Your task to perform on an android device: Go to display settings Image 0: 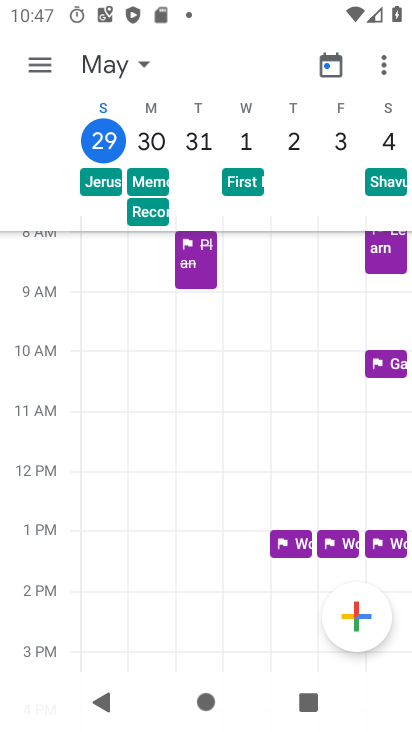
Step 0: press home button
Your task to perform on an android device: Go to display settings Image 1: 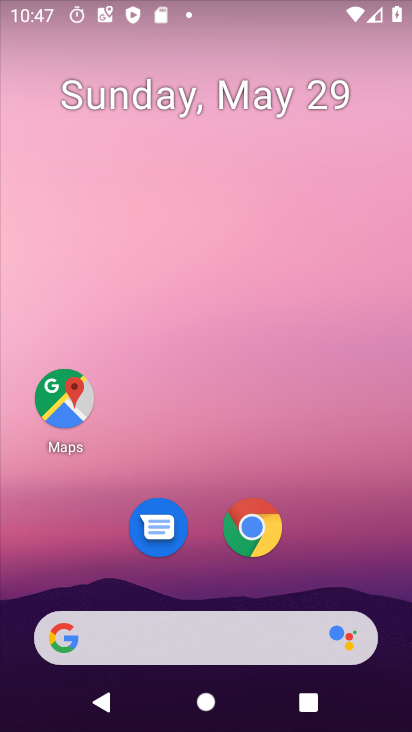
Step 1: drag from (296, 392) to (313, 6)
Your task to perform on an android device: Go to display settings Image 2: 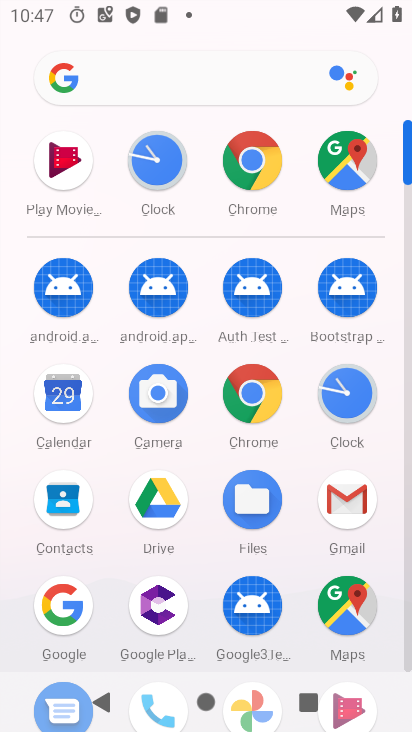
Step 2: drag from (300, 553) to (320, 166)
Your task to perform on an android device: Go to display settings Image 3: 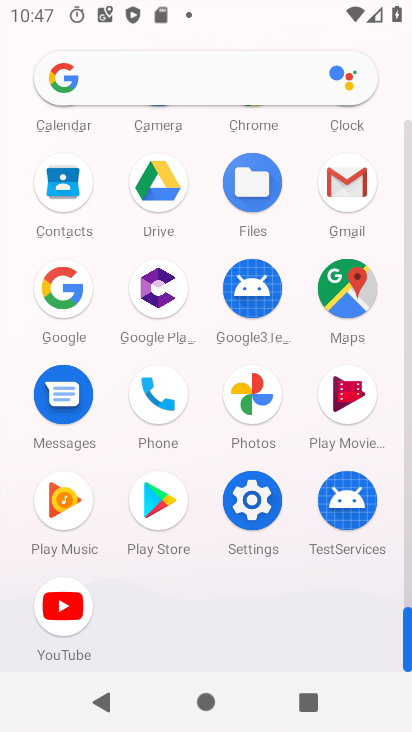
Step 3: click (253, 527)
Your task to perform on an android device: Go to display settings Image 4: 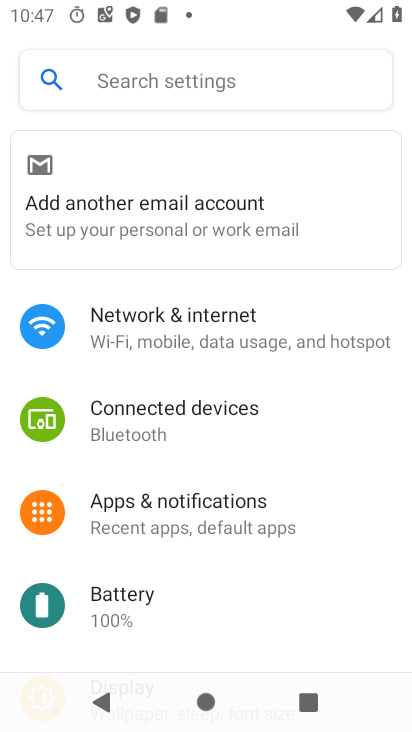
Step 4: drag from (234, 568) to (274, 161)
Your task to perform on an android device: Go to display settings Image 5: 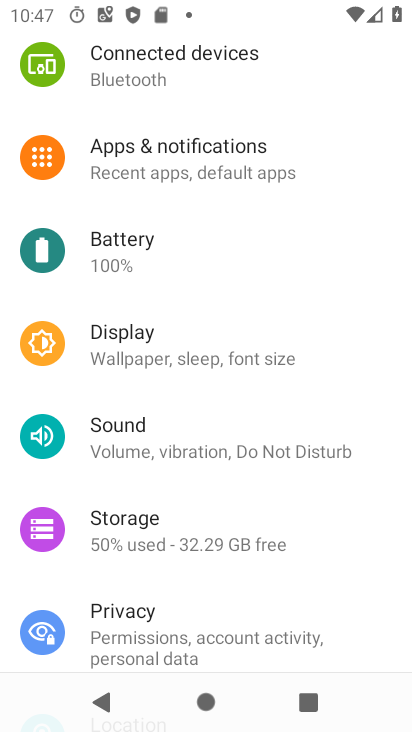
Step 5: click (181, 356)
Your task to perform on an android device: Go to display settings Image 6: 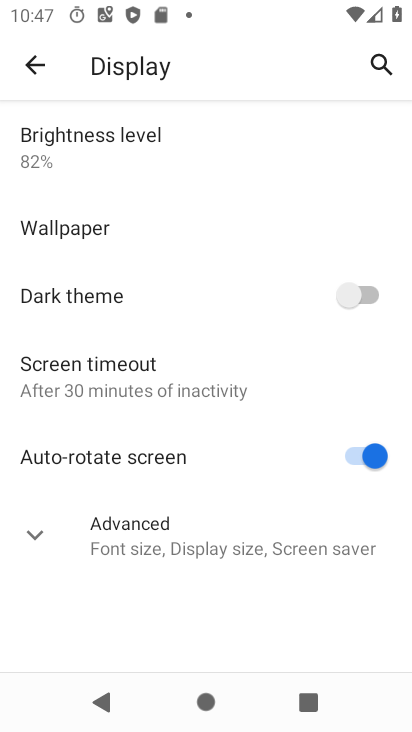
Step 6: task complete